Your task to perform on an android device: turn off javascript in the chrome app Image 0: 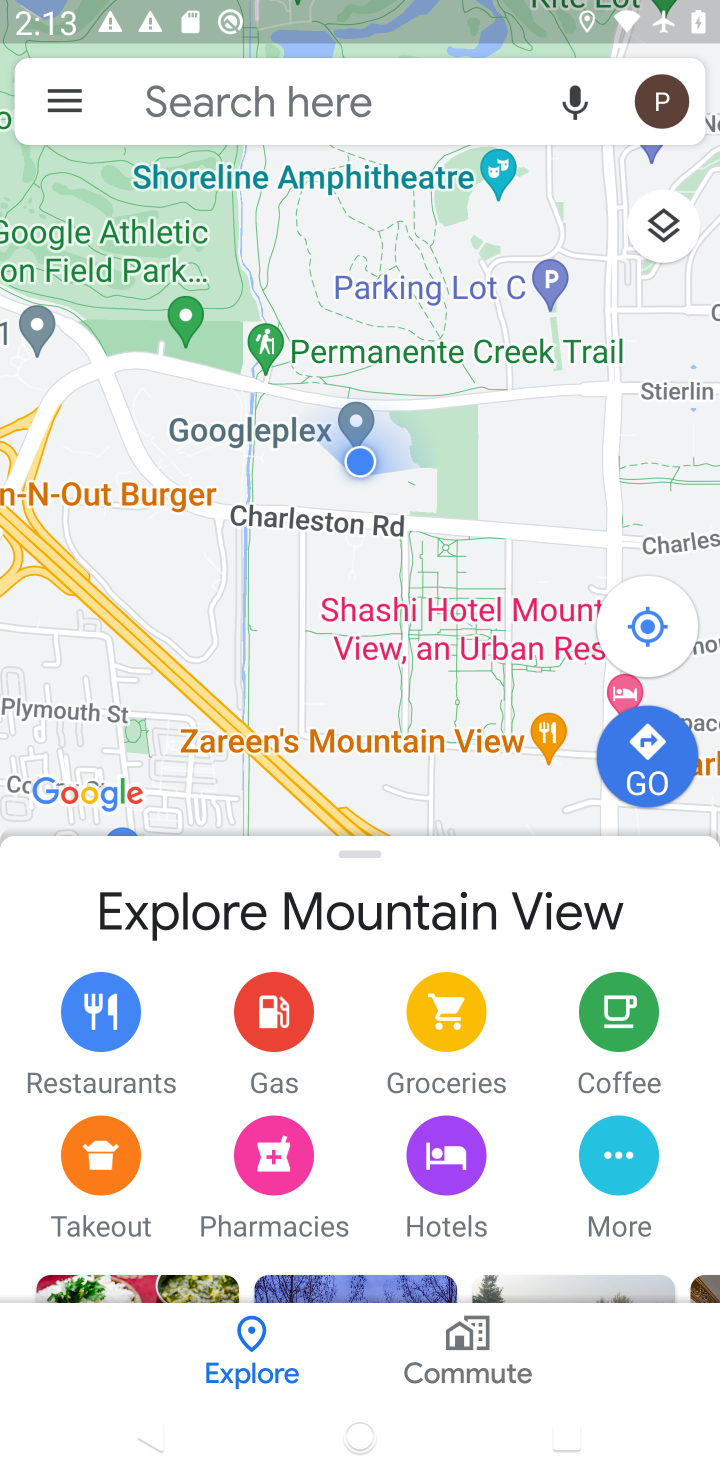
Step 0: press home button
Your task to perform on an android device: turn off javascript in the chrome app Image 1: 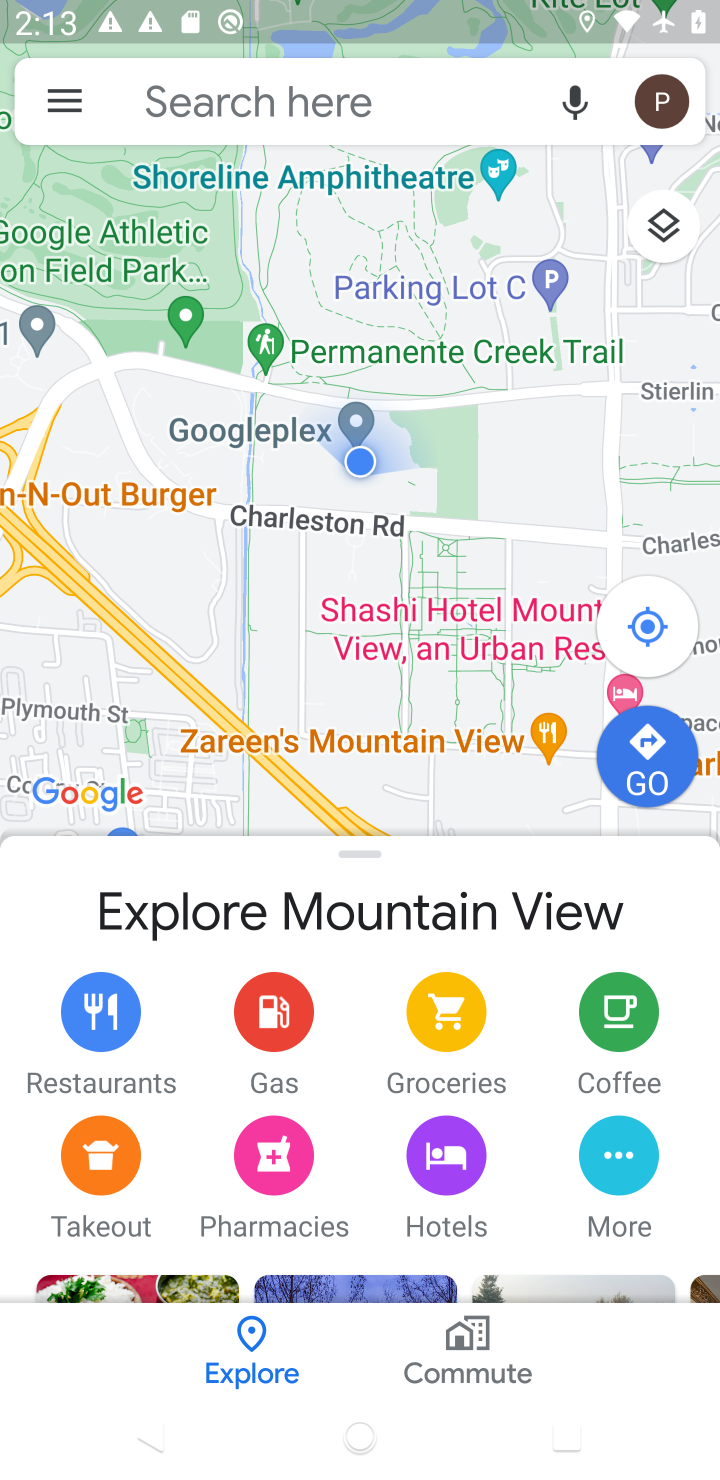
Step 1: press home button
Your task to perform on an android device: turn off javascript in the chrome app Image 2: 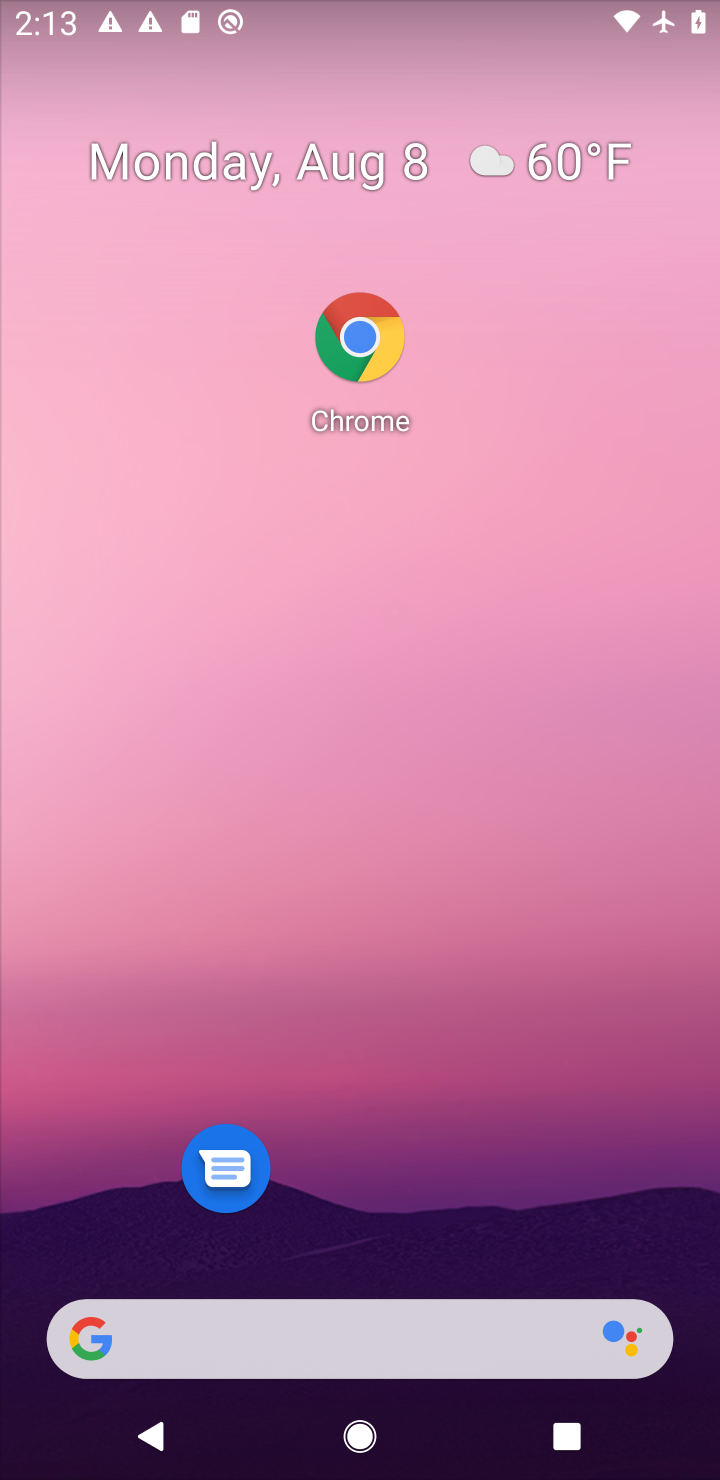
Step 2: drag from (557, 1279) to (415, 126)
Your task to perform on an android device: turn off javascript in the chrome app Image 3: 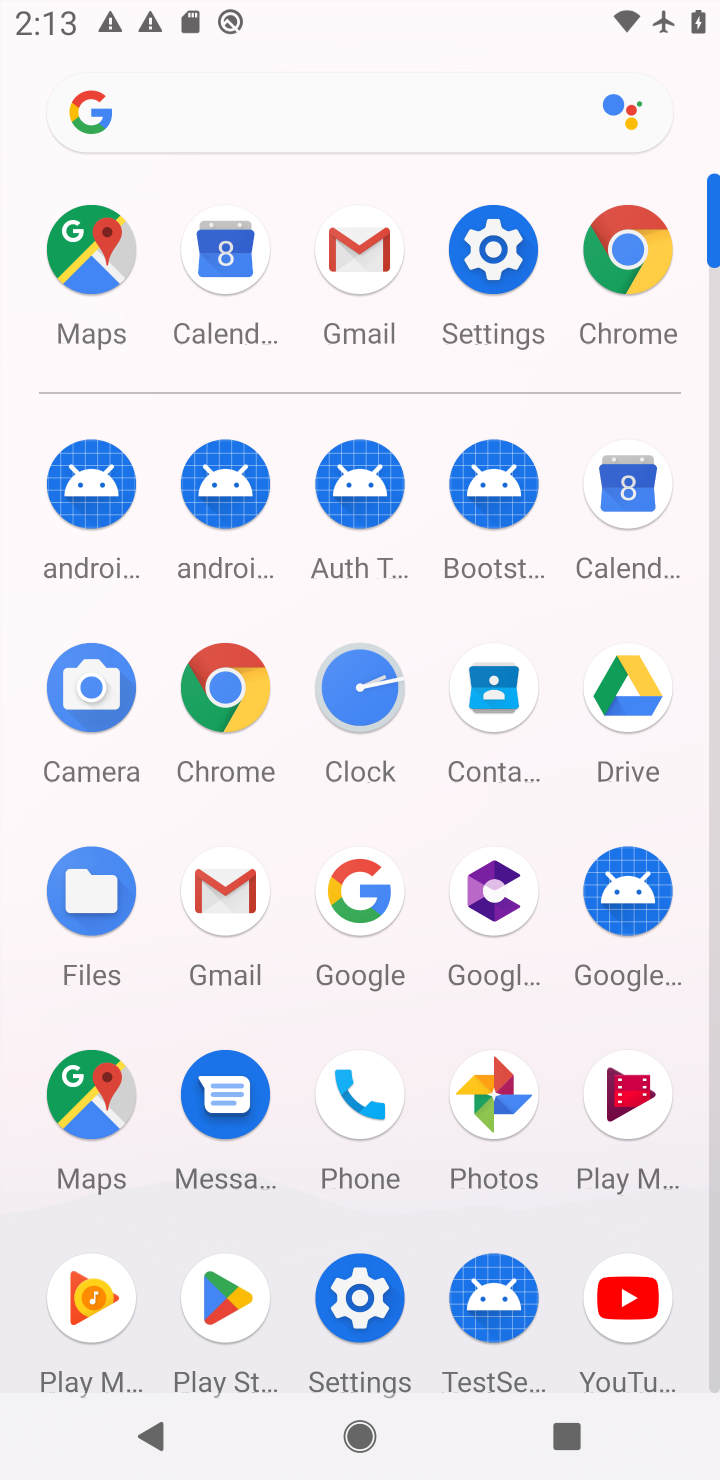
Step 3: click (652, 228)
Your task to perform on an android device: turn off javascript in the chrome app Image 4: 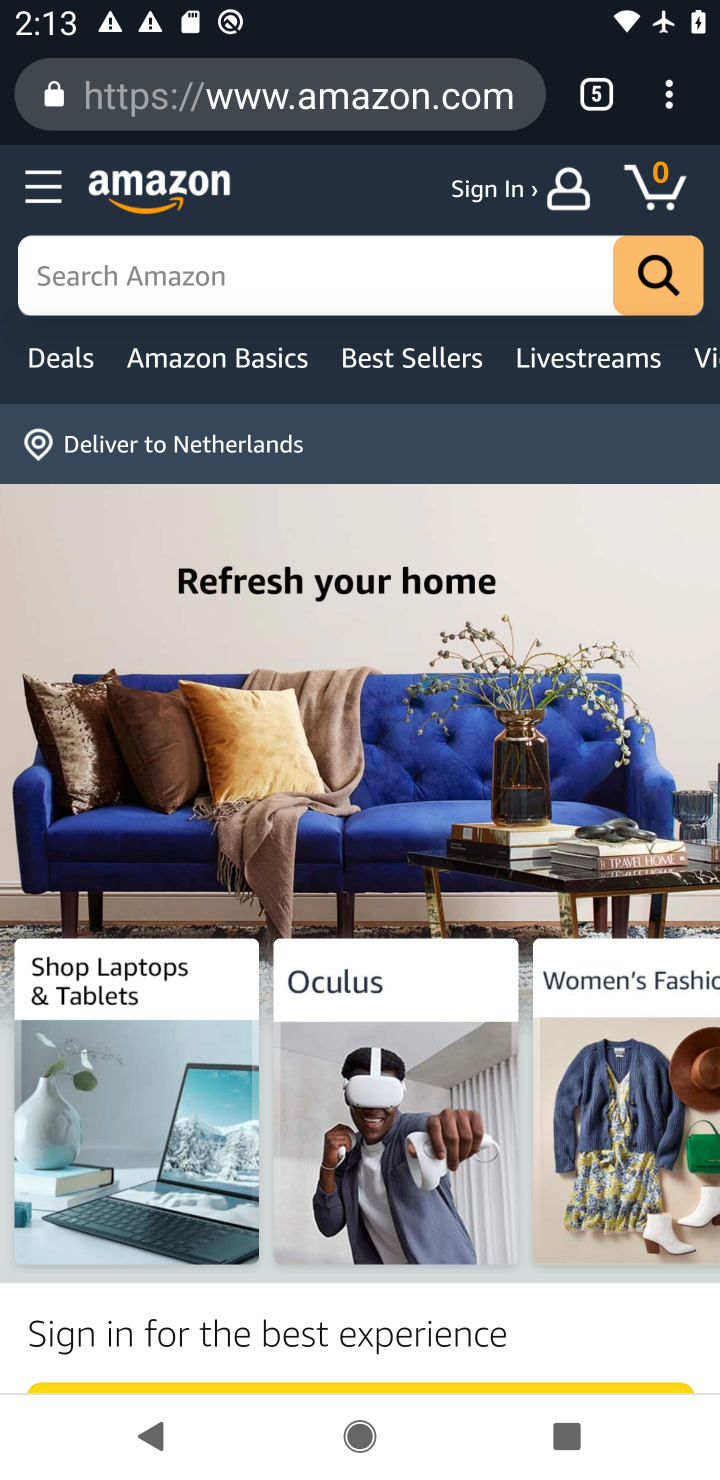
Step 4: task complete